Your task to perform on an android device: open a new tab in the chrome app Image 0: 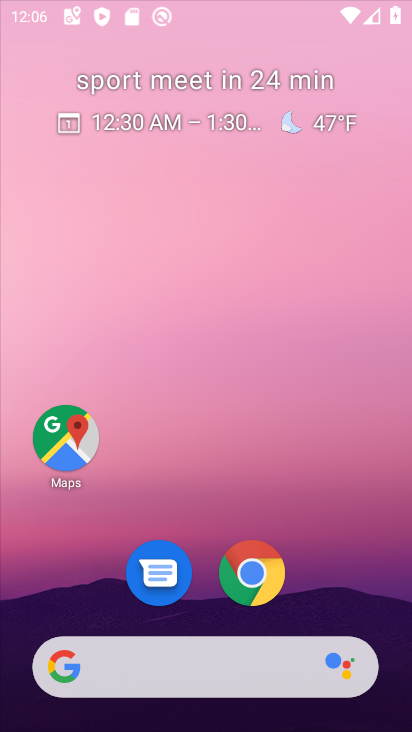
Step 0: click (327, 444)
Your task to perform on an android device: open a new tab in the chrome app Image 1: 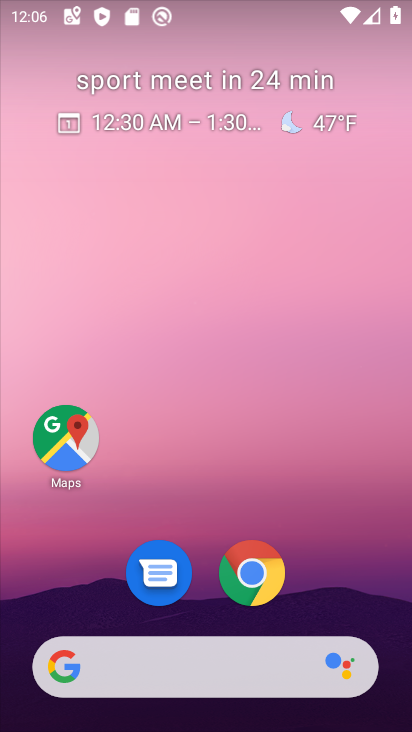
Step 1: drag from (203, 617) to (203, 387)
Your task to perform on an android device: open a new tab in the chrome app Image 2: 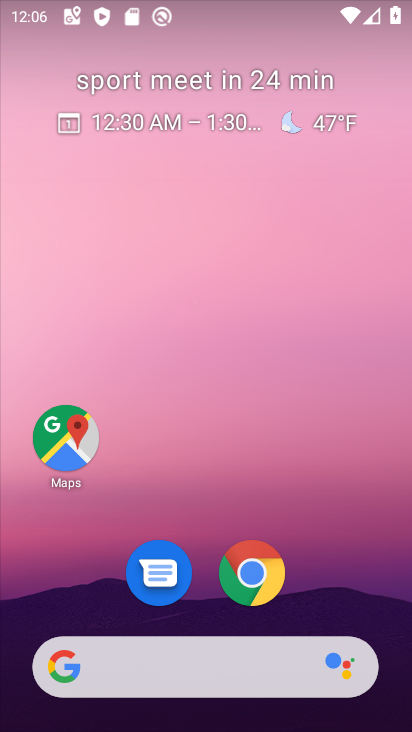
Step 2: drag from (207, 609) to (200, 310)
Your task to perform on an android device: open a new tab in the chrome app Image 3: 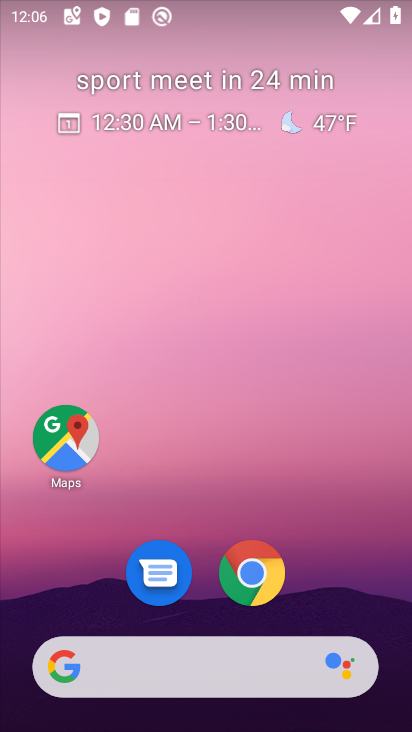
Step 3: click (240, 561)
Your task to perform on an android device: open a new tab in the chrome app Image 4: 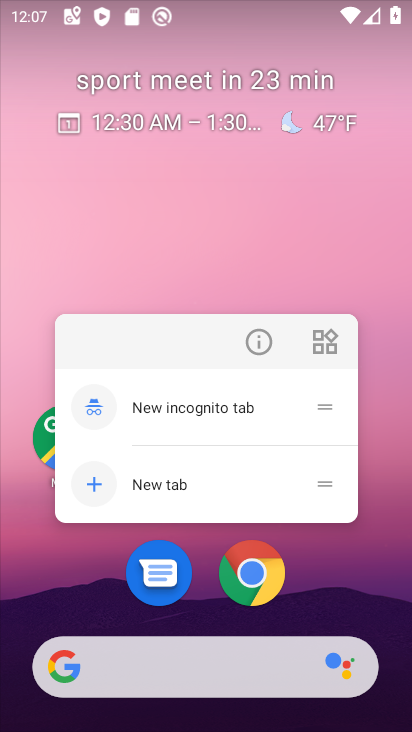
Step 4: click (255, 331)
Your task to perform on an android device: open a new tab in the chrome app Image 5: 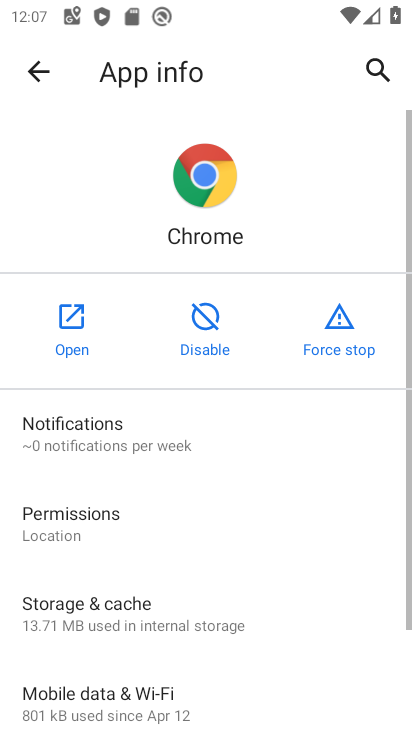
Step 5: click (69, 325)
Your task to perform on an android device: open a new tab in the chrome app Image 6: 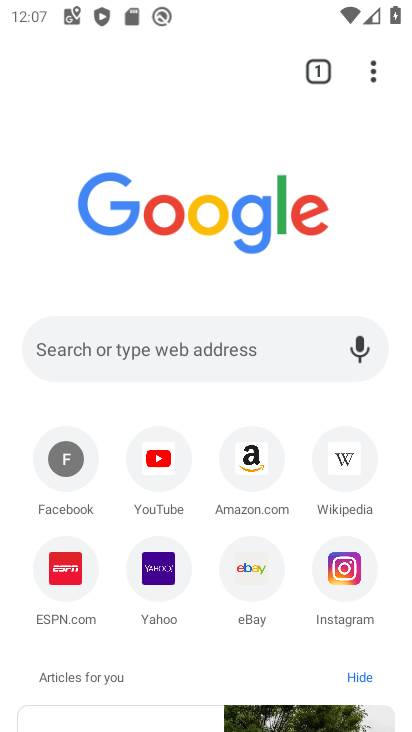
Step 6: click (327, 69)
Your task to perform on an android device: open a new tab in the chrome app Image 7: 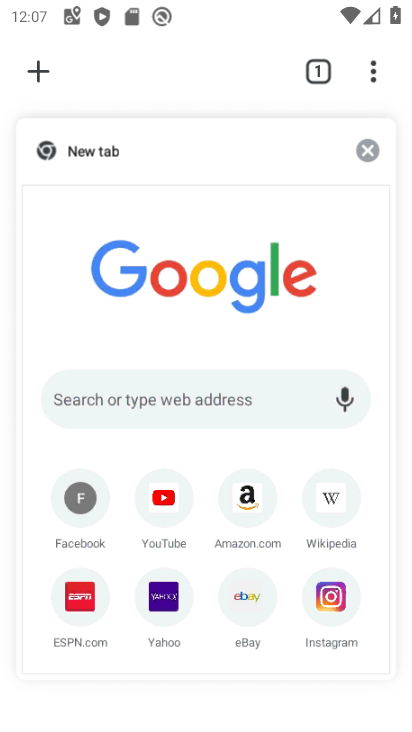
Step 7: click (40, 79)
Your task to perform on an android device: open a new tab in the chrome app Image 8: 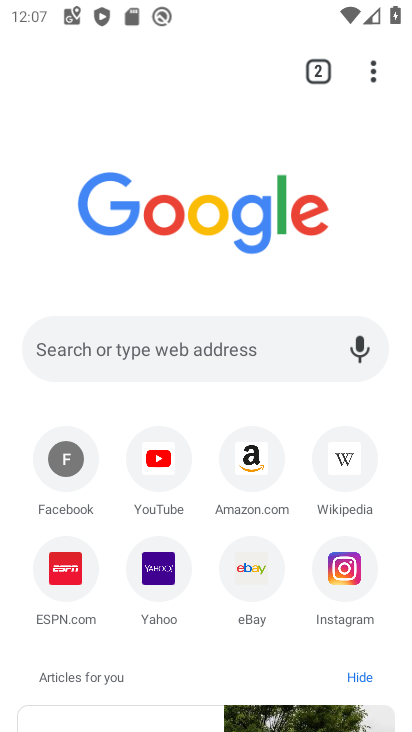
Step 8: task complete